Your task to perform on an android device: open app "Microsoft Excel" (install if not already installed) Image 0: 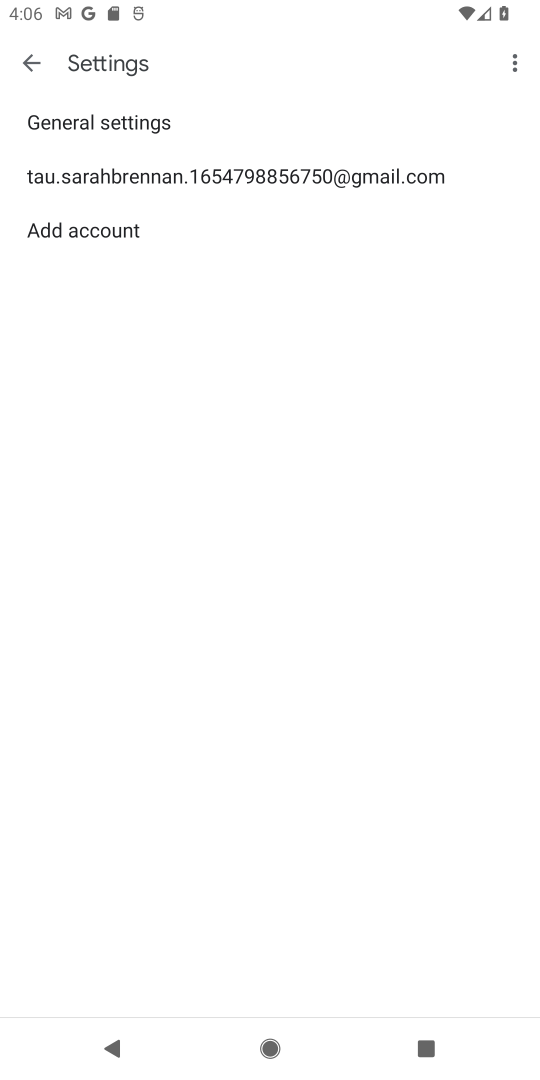
Step 0: press home button
Your task to perform on an android device: open app "Microsoft Excel" (install if not already installed) Image 1: 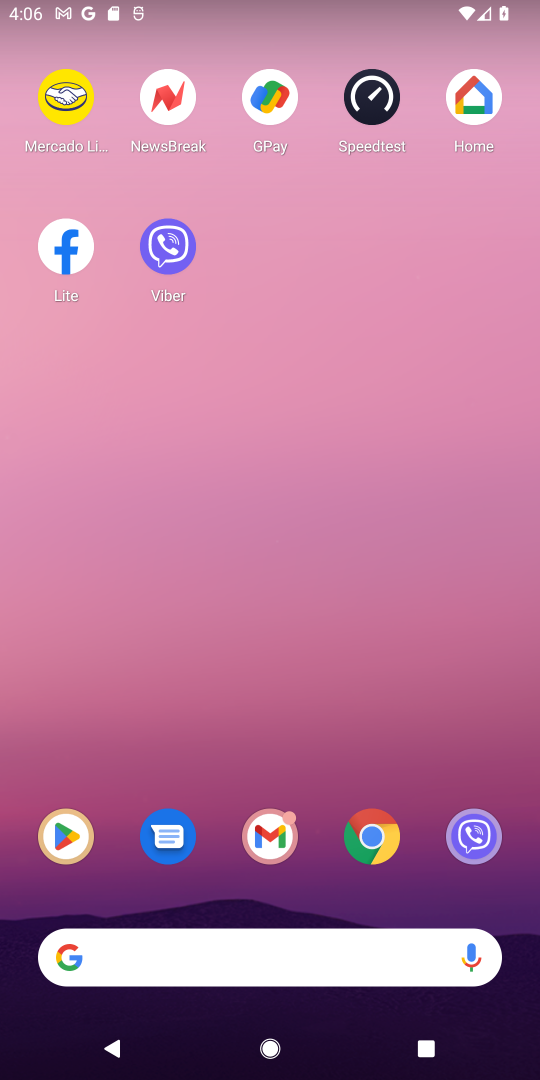
Step 1: drag from (245, 930) to (245, 623)
Your task to perform on an android device: open app "Microsoft Excel" (install if not already installed) Image 2: 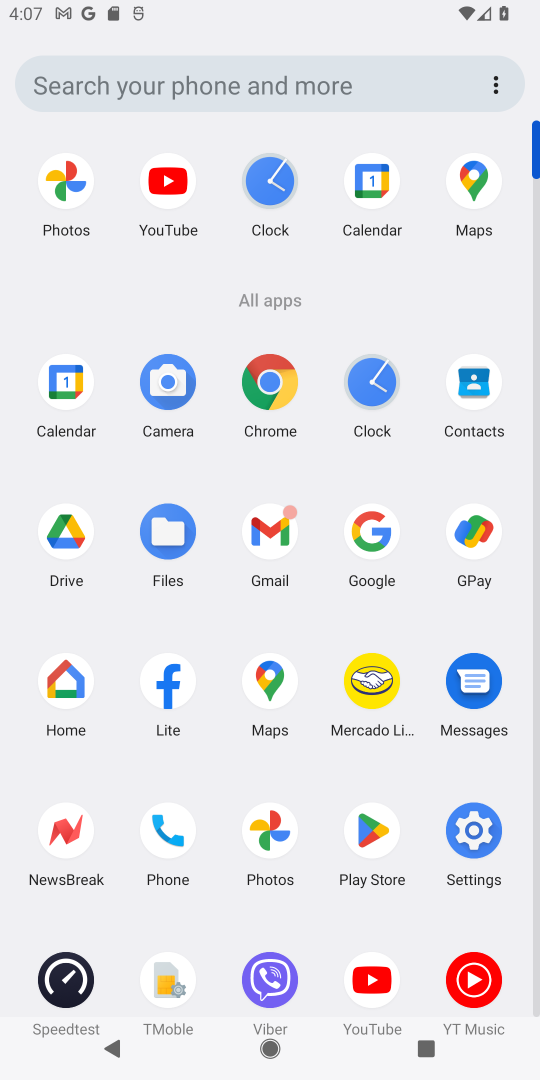
Step 2: click (375, 831)
Your task to perform on an android device: open app "Microsoft Excel" (install if not already installed) Image 3: 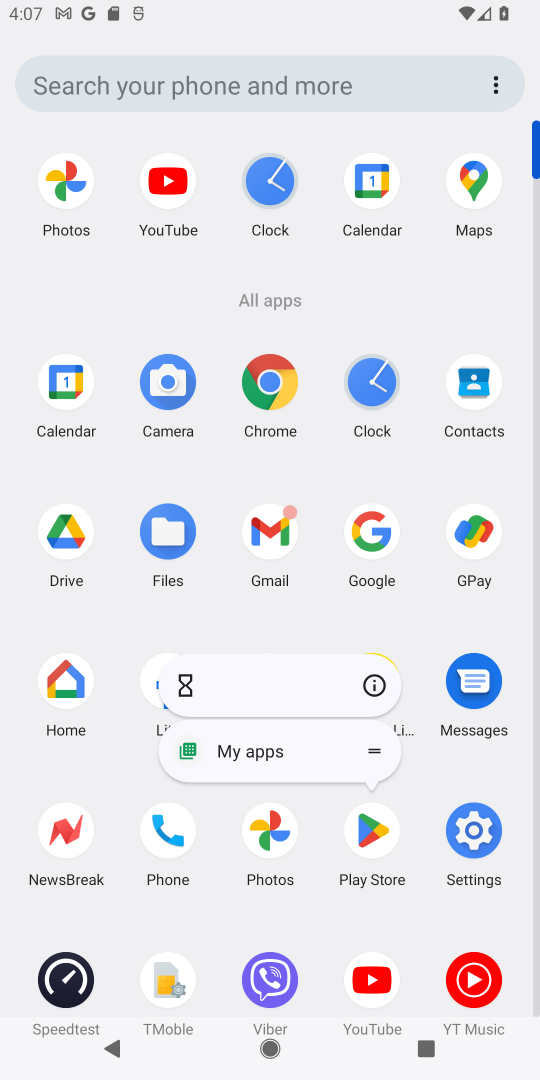
Step 3: click (375, 831)
Your task to perform on an android device: open app "Microsoft Excel" (install if not already installed) Image 4: 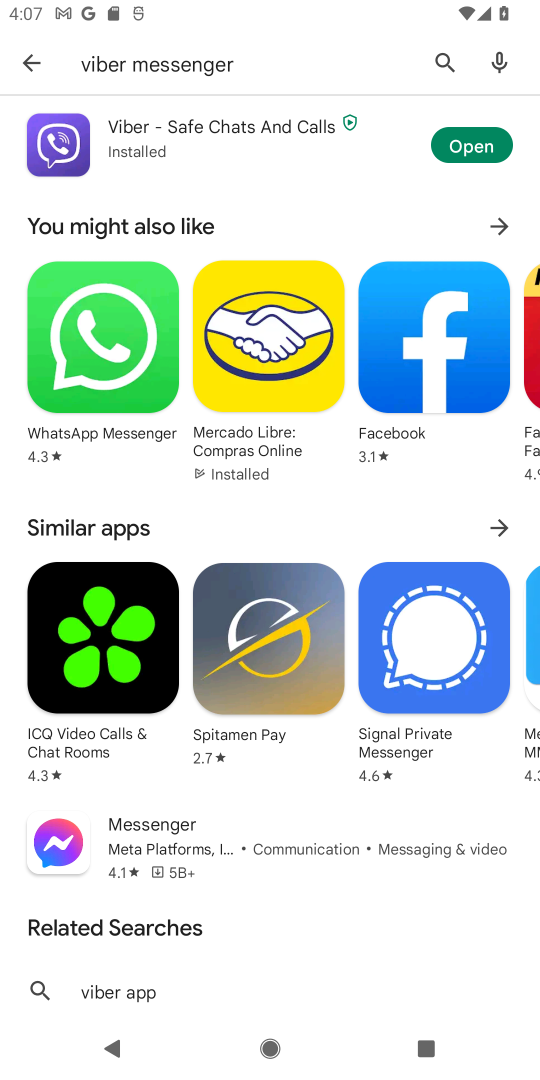
Step 4: click (29, 65)
Your task to perform on an android device: open app "Microsoft Excel" (install if not already installed) Image 5: 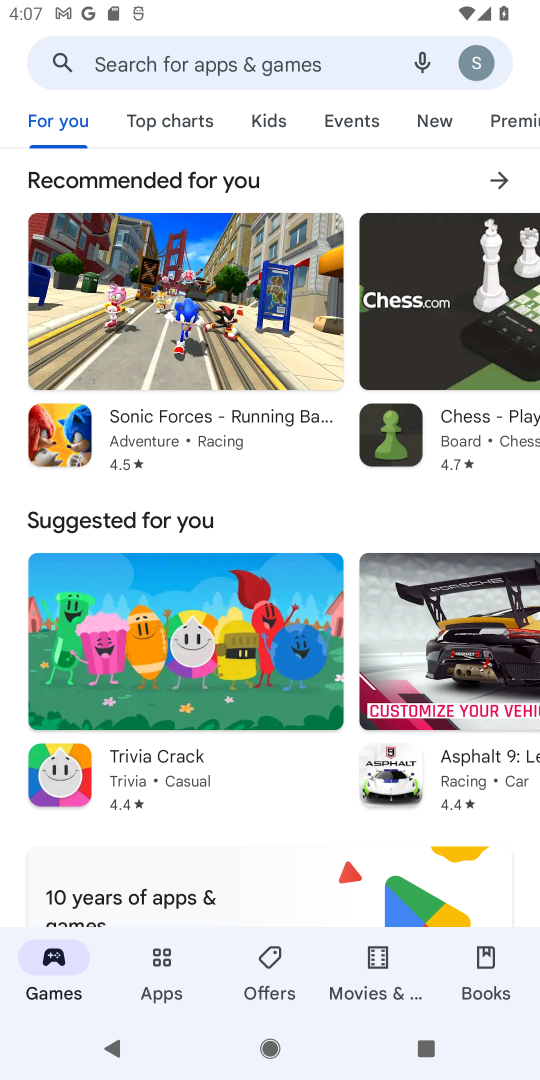
Step 5: click (141, 56)
Your task to perform on an android device: open app "Microsoft Excel" (install if not already installed) Image 6: 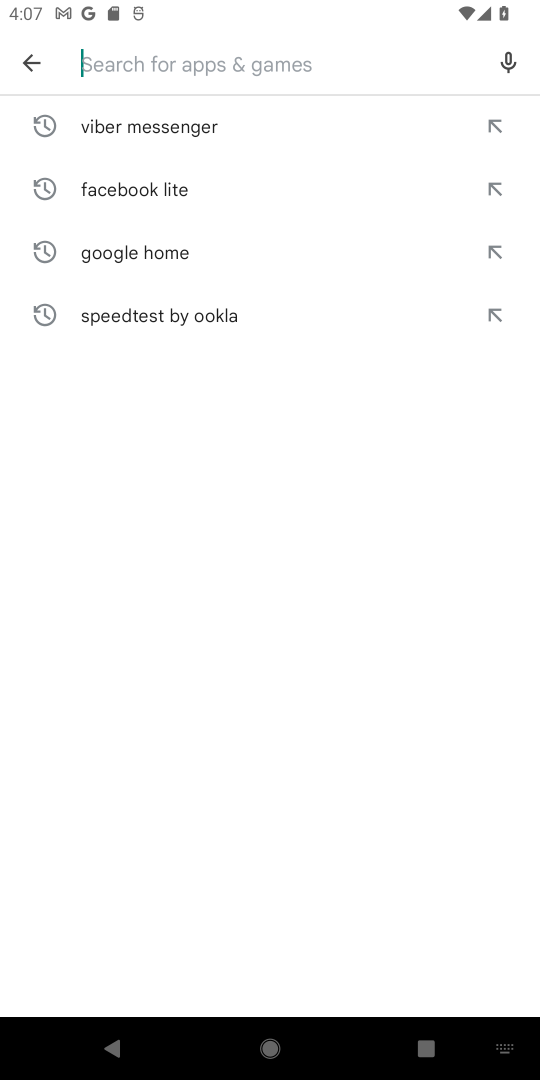
Step 6: click (104, 61)
Your task to perform on an android device: open app "Microsoft Excel" (install if not already installed) Image 7: 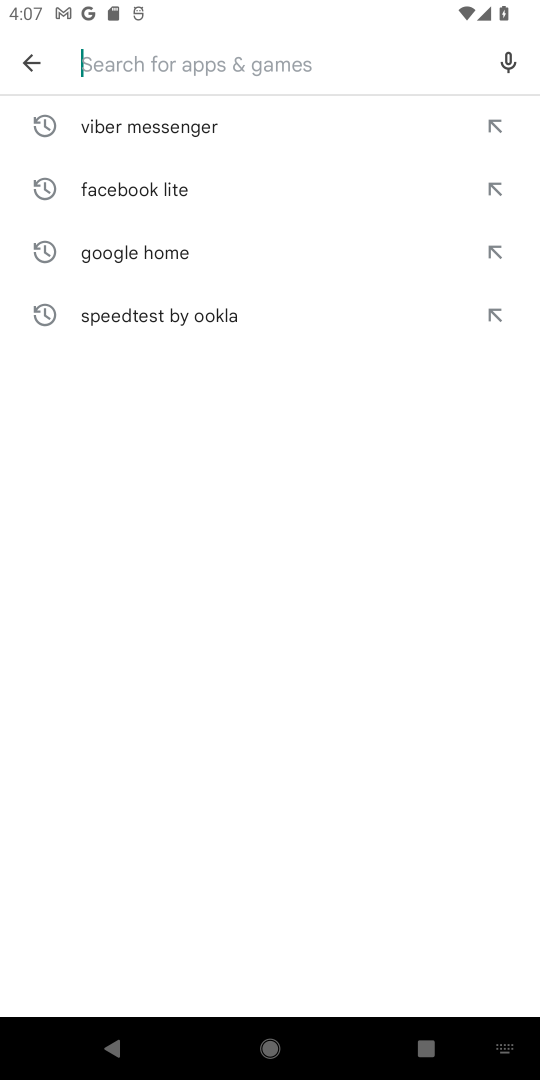
Step 7: click (104, 61)
Your task to perform on an android device: open app "Microsoft Excel" (install if not already installed) Image 8: 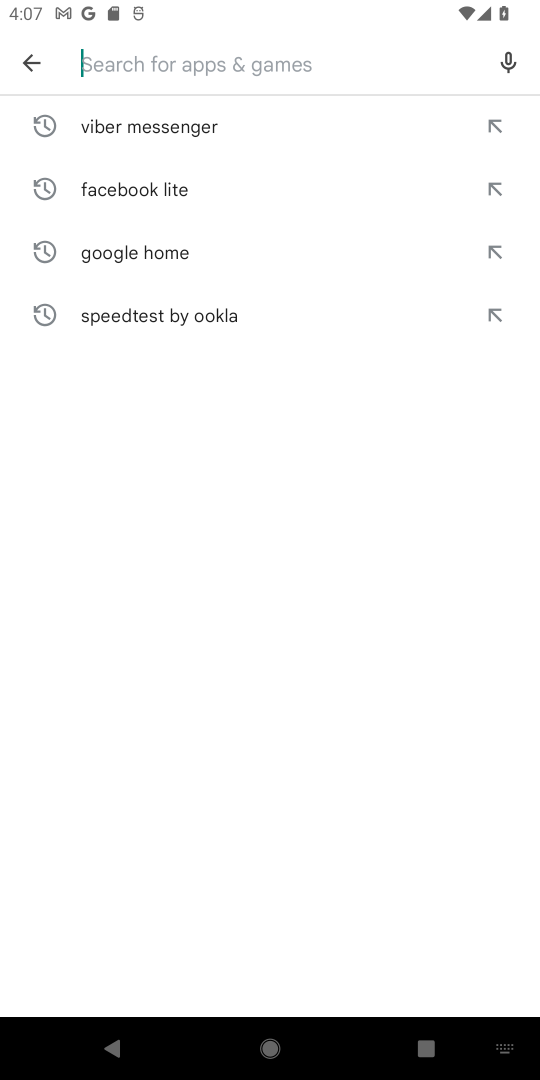
Step 8: type "Microsoft Excel"
Your task to perform on an android device: open app "Microsoft Excel" (install if not already installed) Image 9: 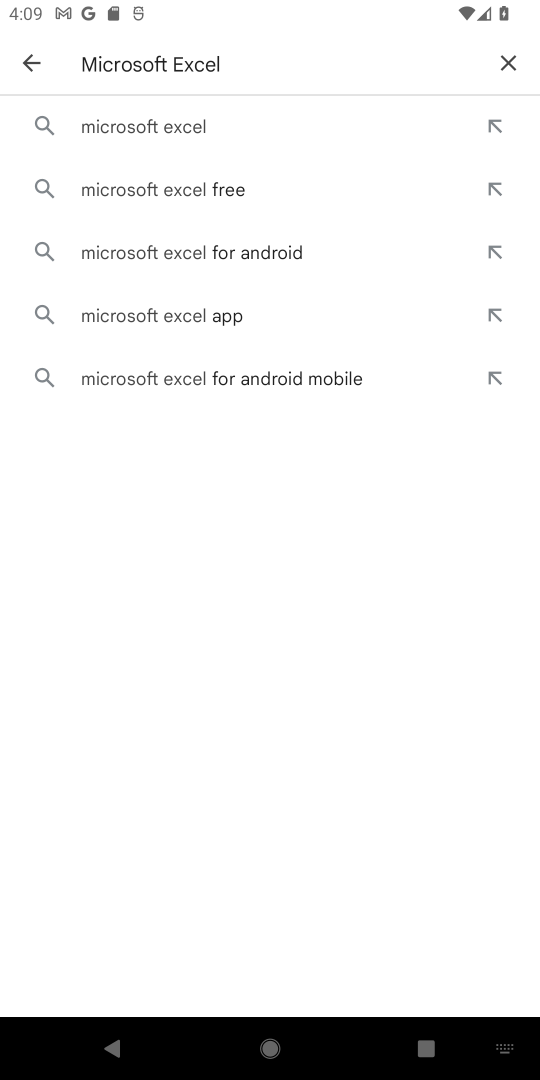
Step 9: click (202, 138)
Your task to perform on an android device: open app "Microsoft Excel" (install if not already installed) Image 10: 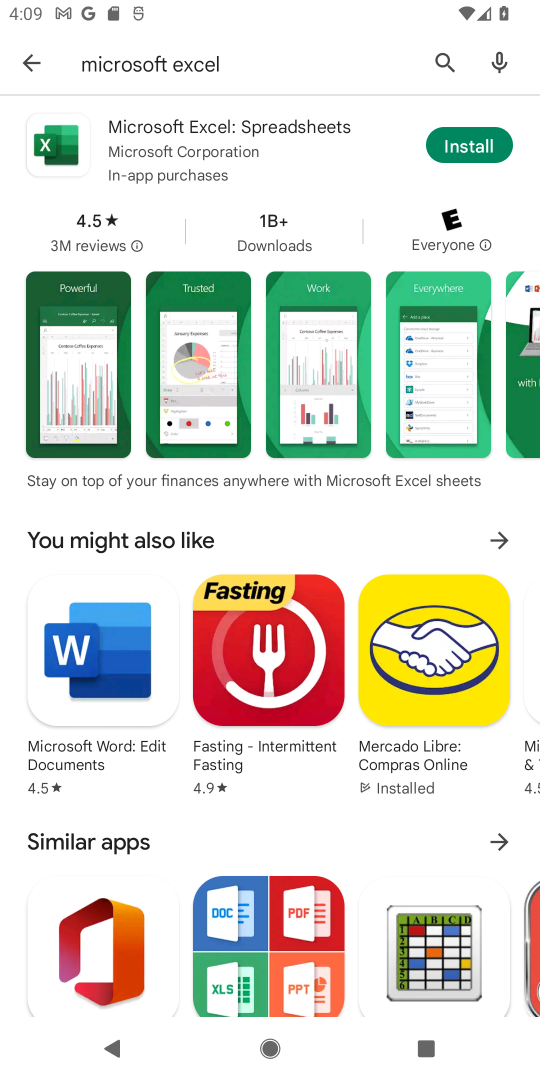
Step 10: click (468, 160)
Your task to perform on an android device: open app "Microsoft Excel" (install if not already installed) Image 11: 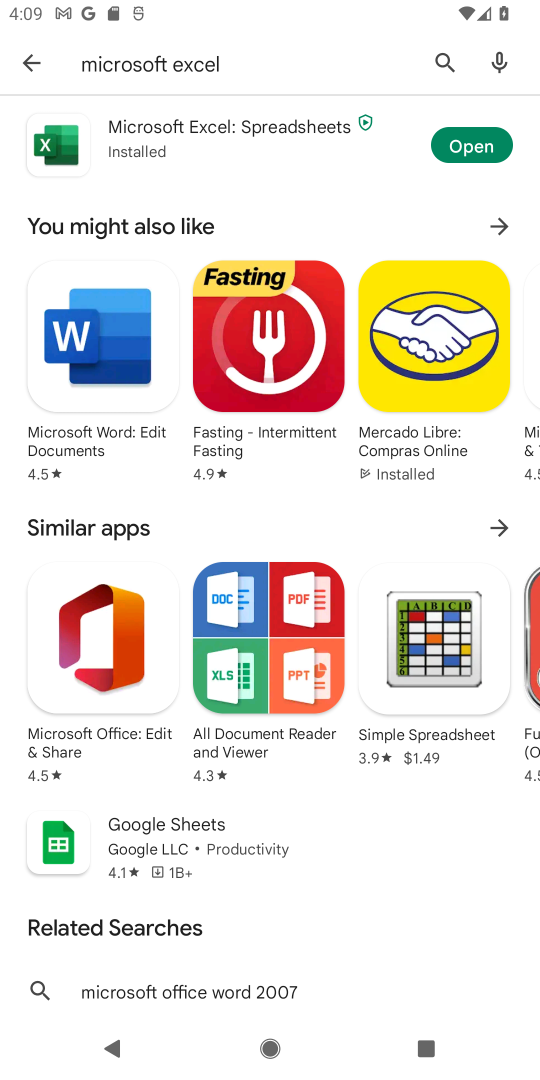
Step 11: click (462, 139)
Your task to perform on an android device: open app "Microsoft Excel" (install if not already installed) Image 12: 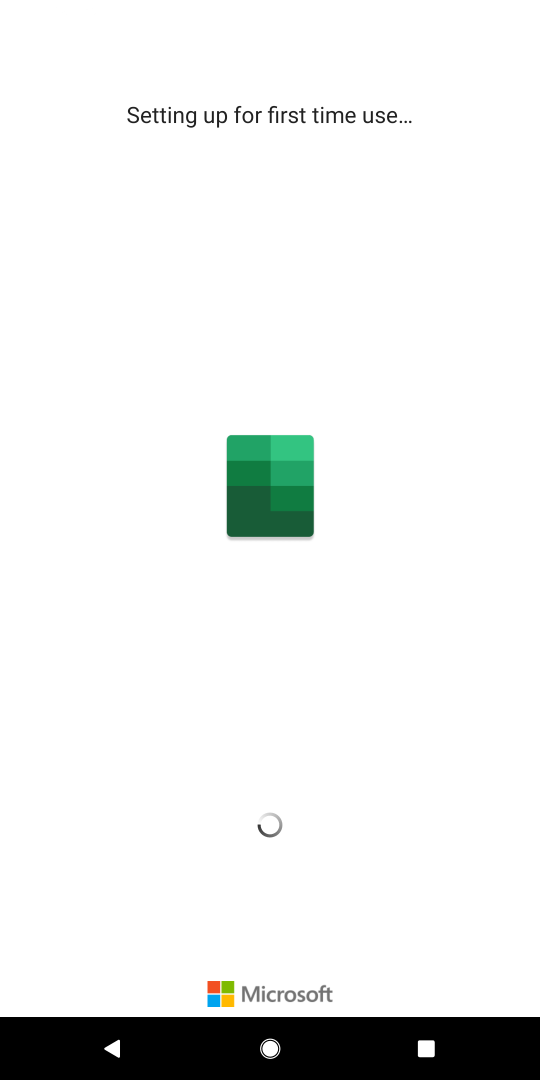
Step 12: task complete